Your task to perform on an android device: install app "Flipkart Online Shopping App" Image 0: 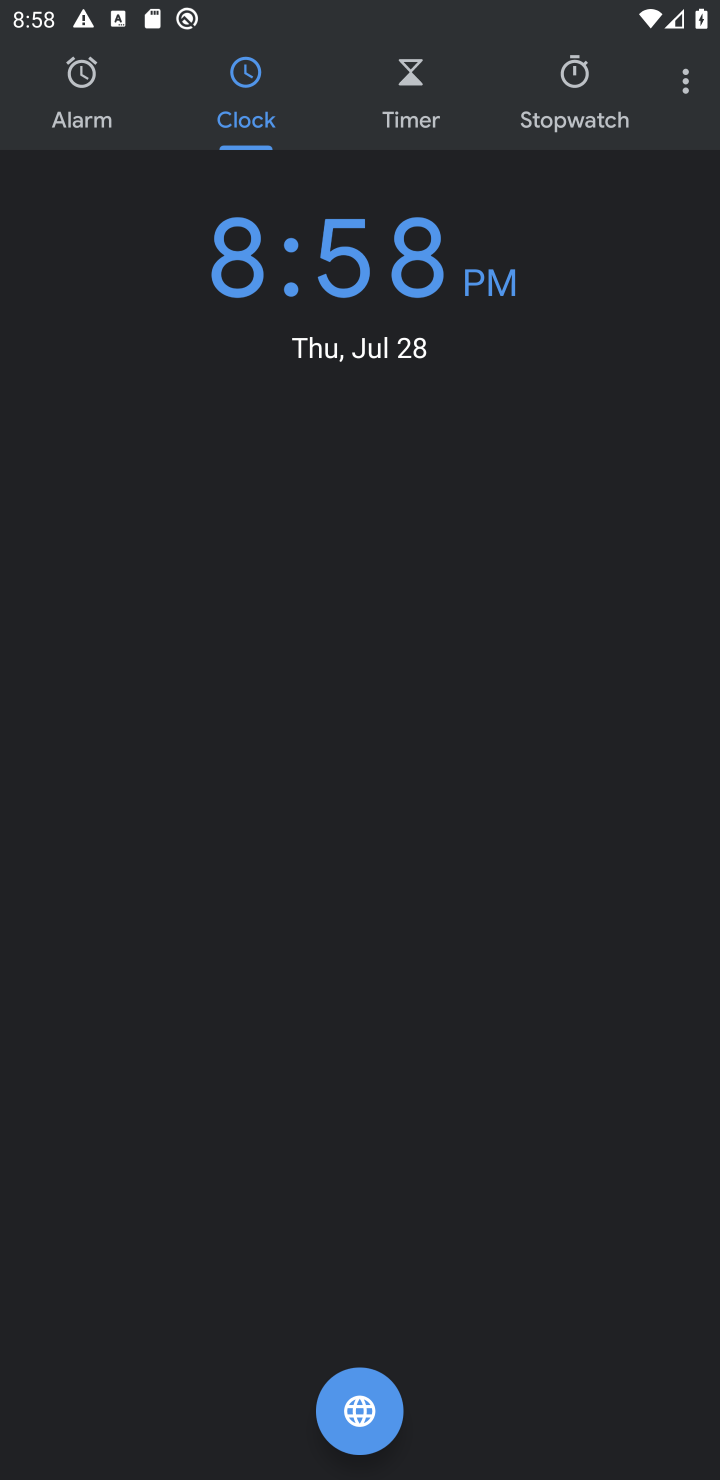
Step 0: press home button
Your task to perform on an android device: install app "Flipkart Online Shopping App" Image 1: 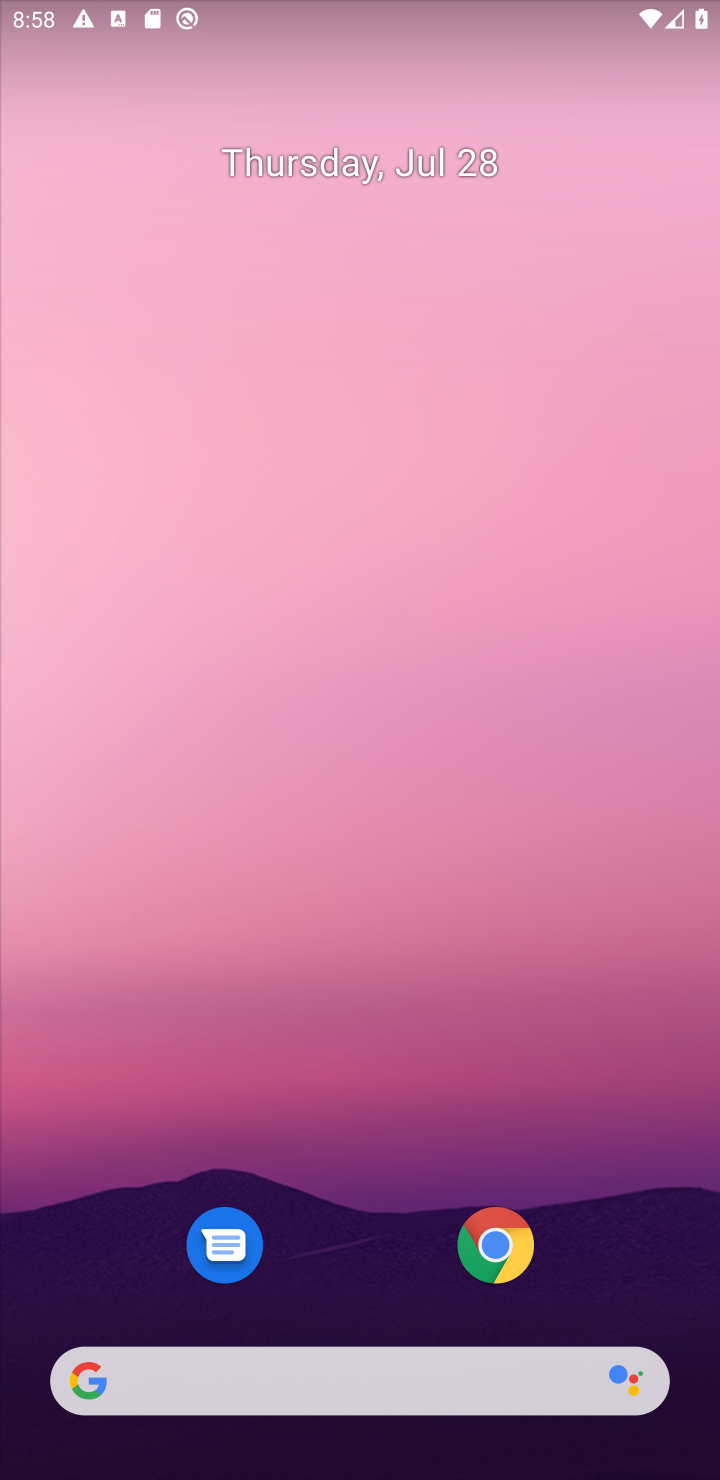
Step 1: drag from (393, 1185) to (451, 40)
Your task to perform on an android device: install app "Flipkart Online Shopping App" Image 2: 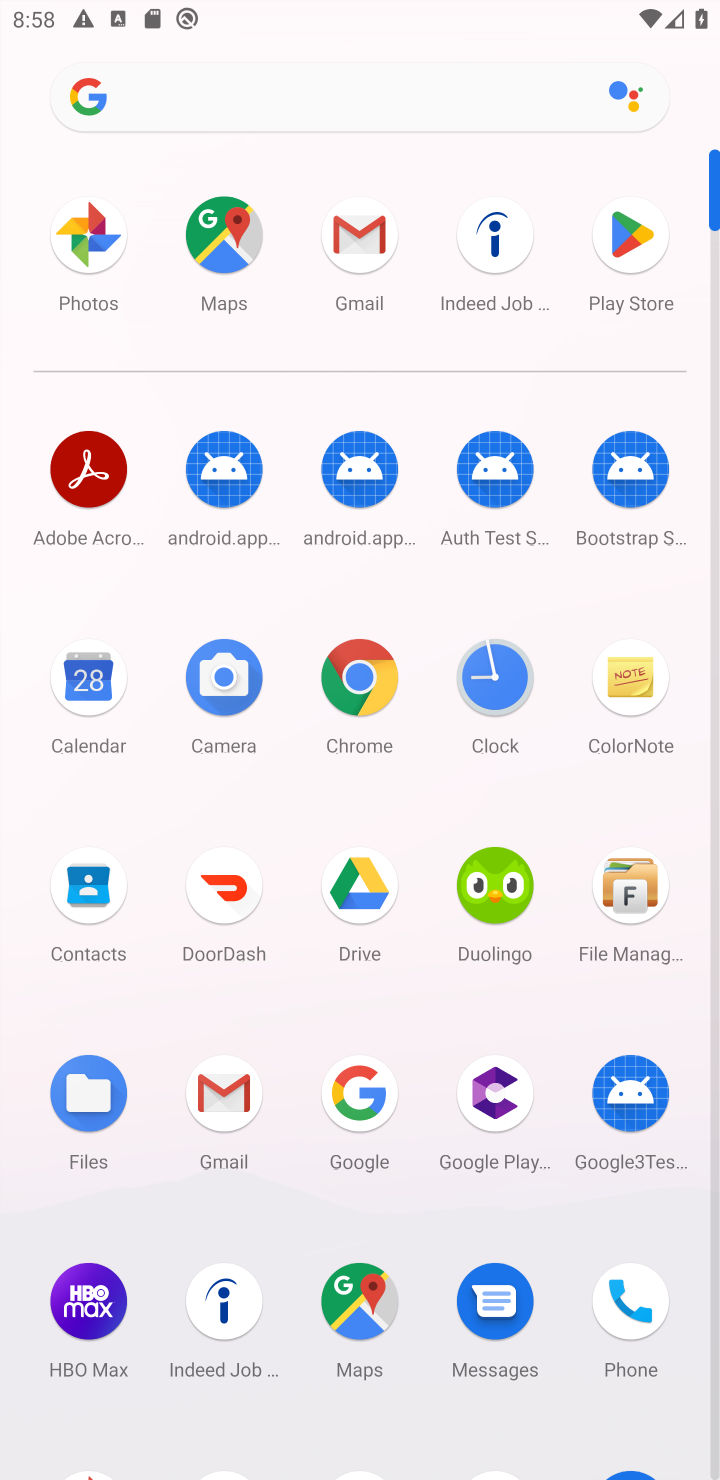
Step 2: click (614, 269)
Your task to perform on an android device: install app "Flipkart Online Shopping App" Image 3: 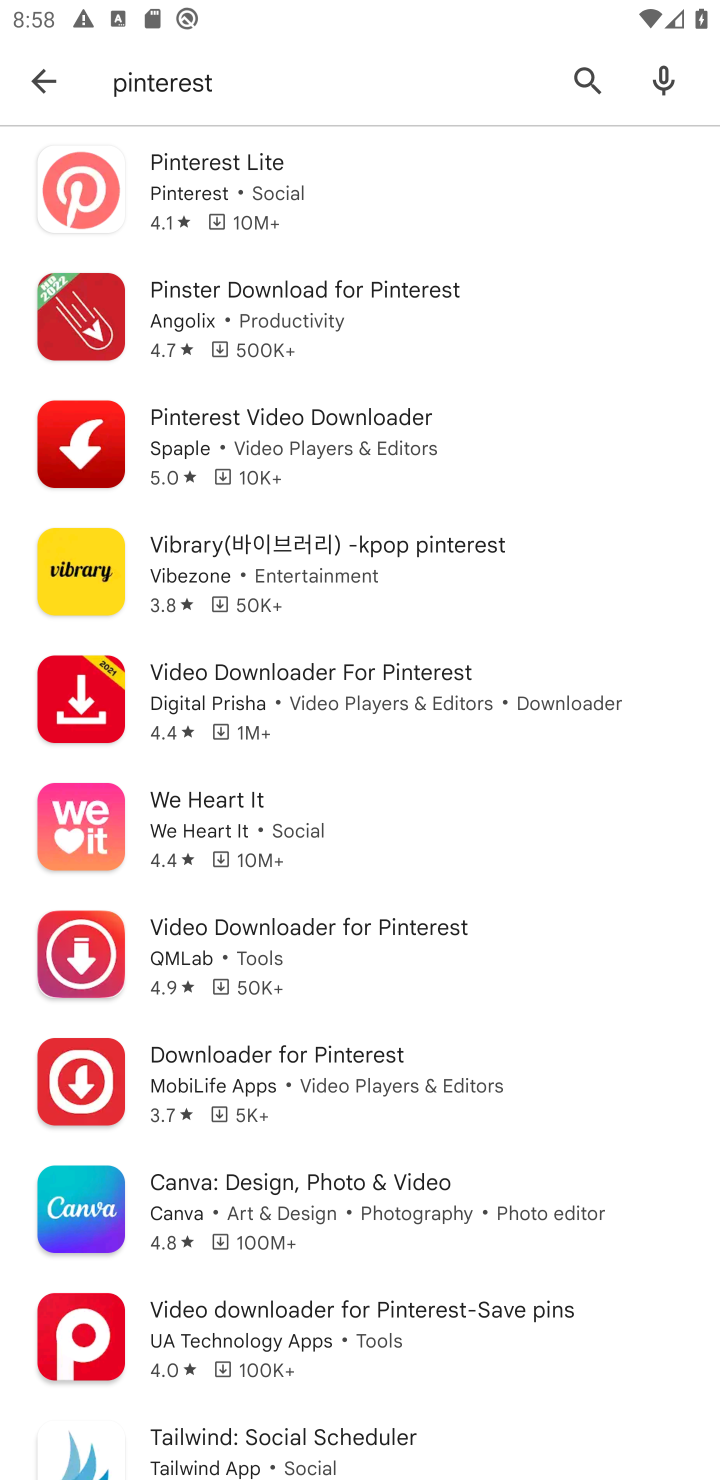
Step 3: click (571, 105)
Your task to perform on an android device: install app "Flipkart Online Shopping App" Image 4: 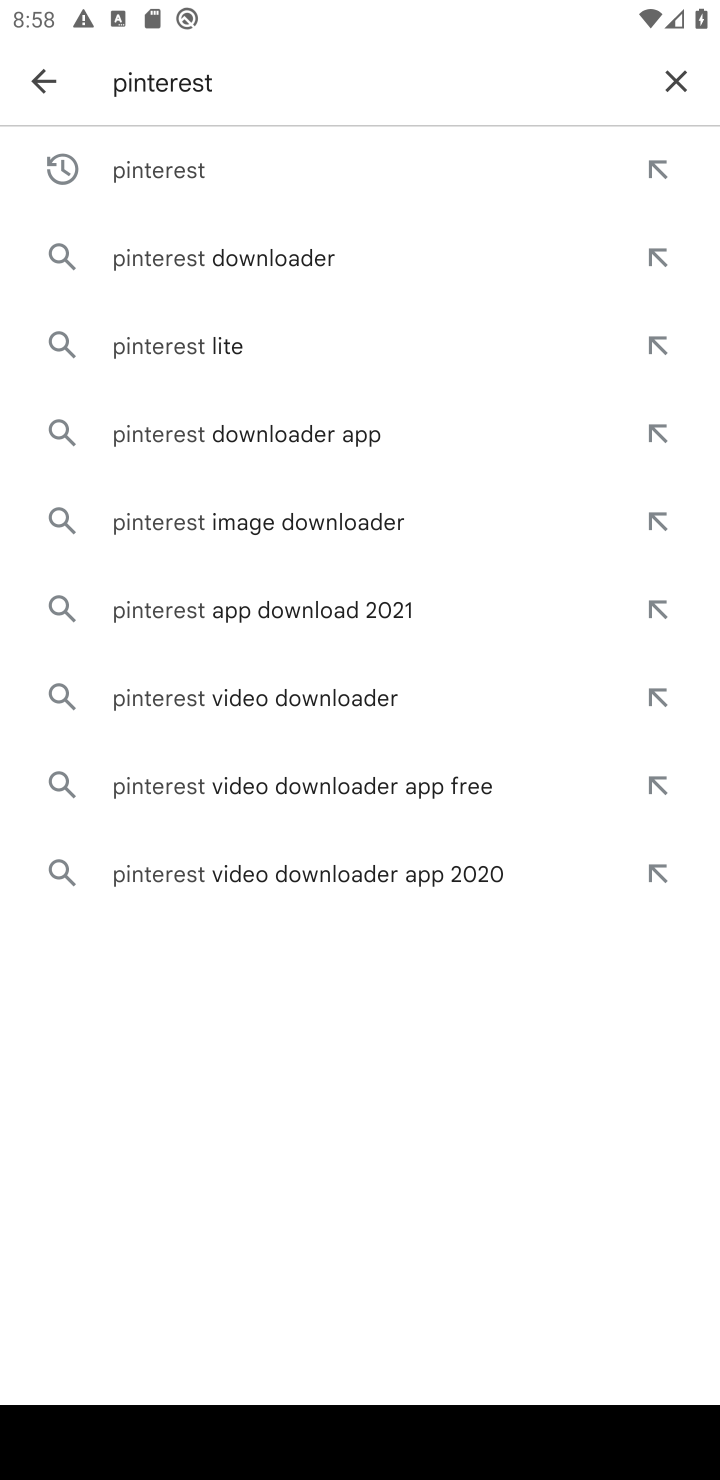
Step 4: click (664, 80)
Your task to perform on an android device: install app "Flipkart Online Shopping App" Image 5: 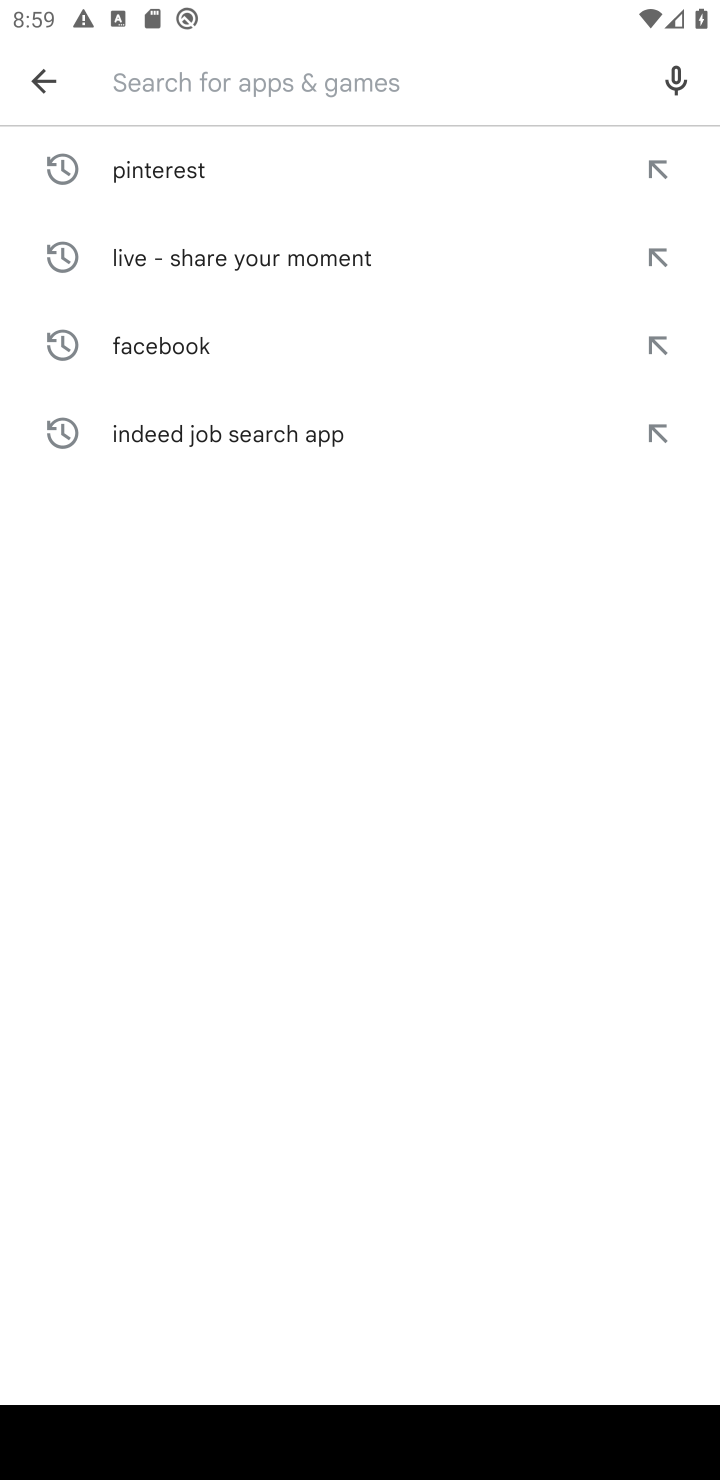
Step 5: type "flipkart online shopping app"
Your task to perform on an android device: install app "Flipkart Online Shopping App" Image 6: 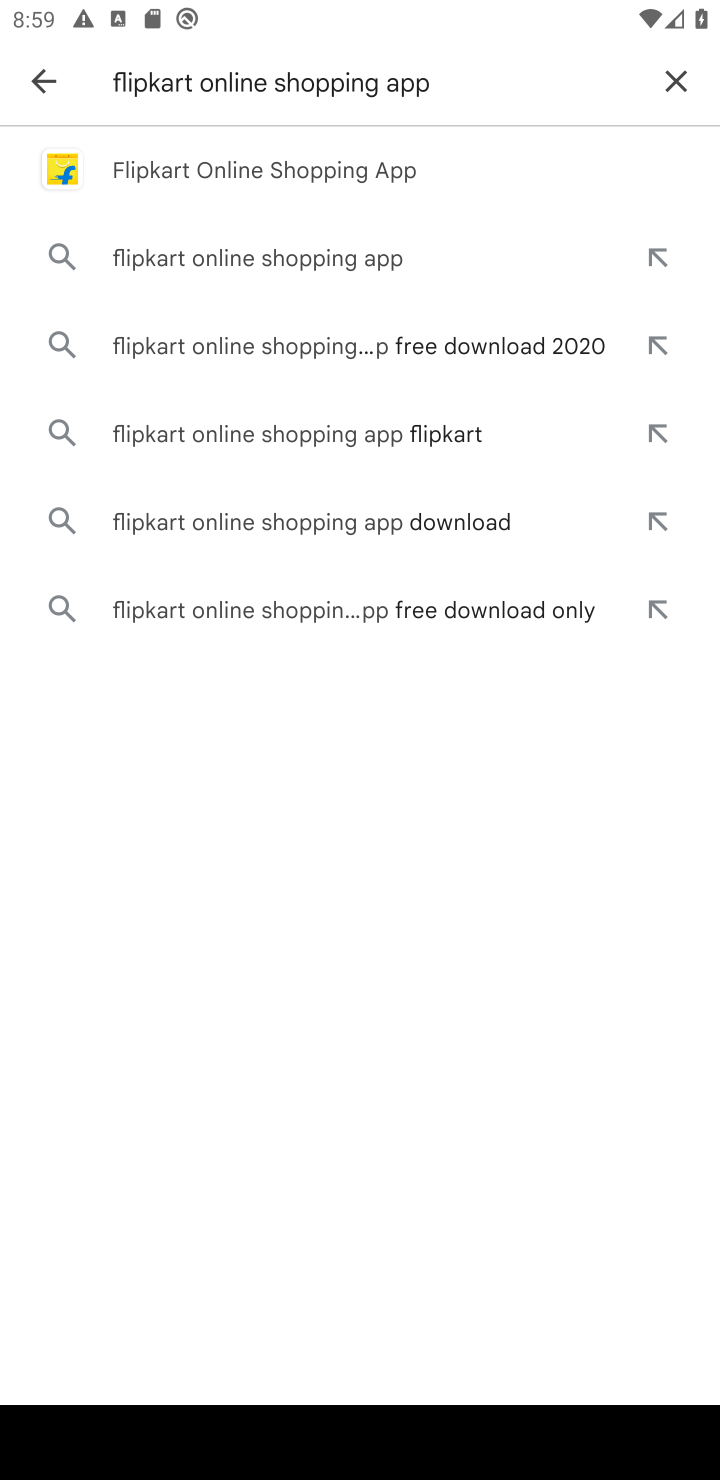
Step 6: click (208, 153)
Your task to perform on an android device: install app "Flipkart Online Shopping App" Image 7: 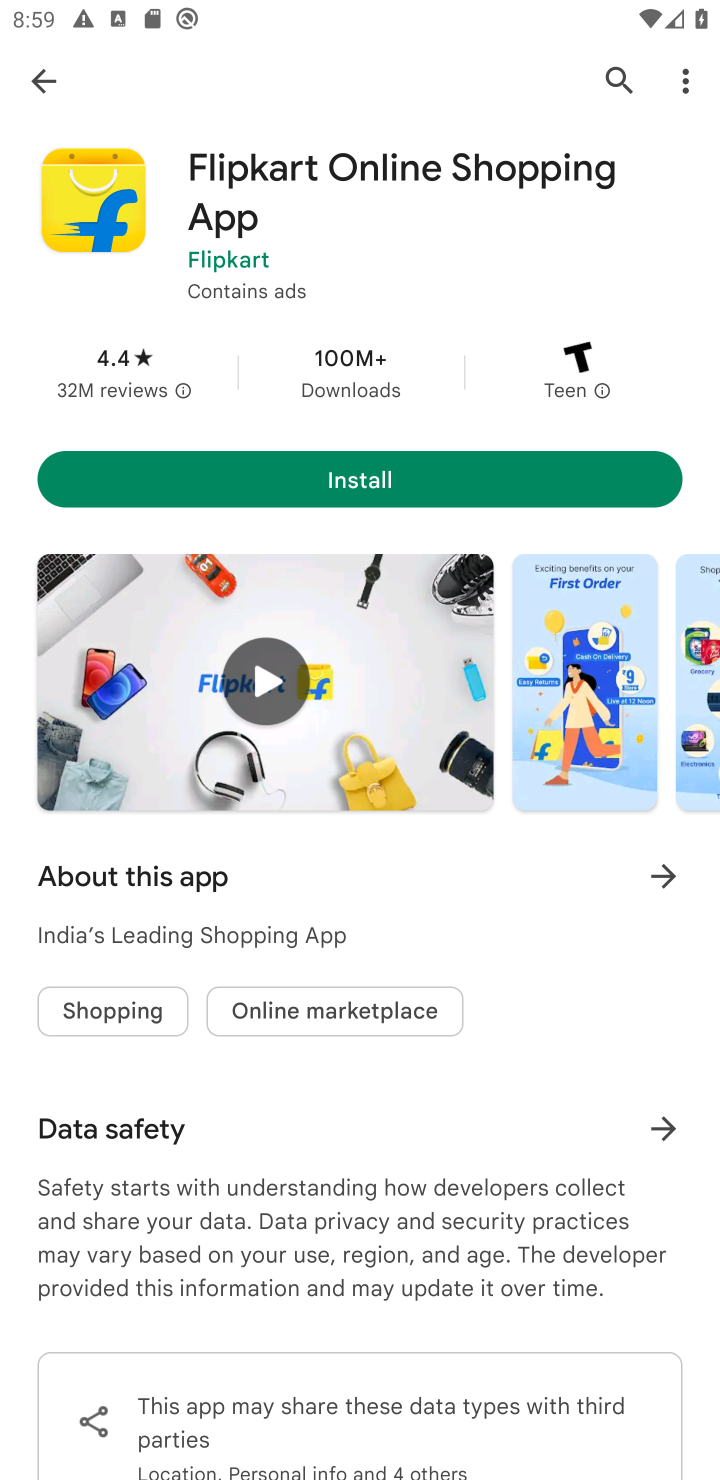
Step 7: click (254, 477)
Your task to perform on an android device: install app "Flipkart Online Shopping App" Image 8: 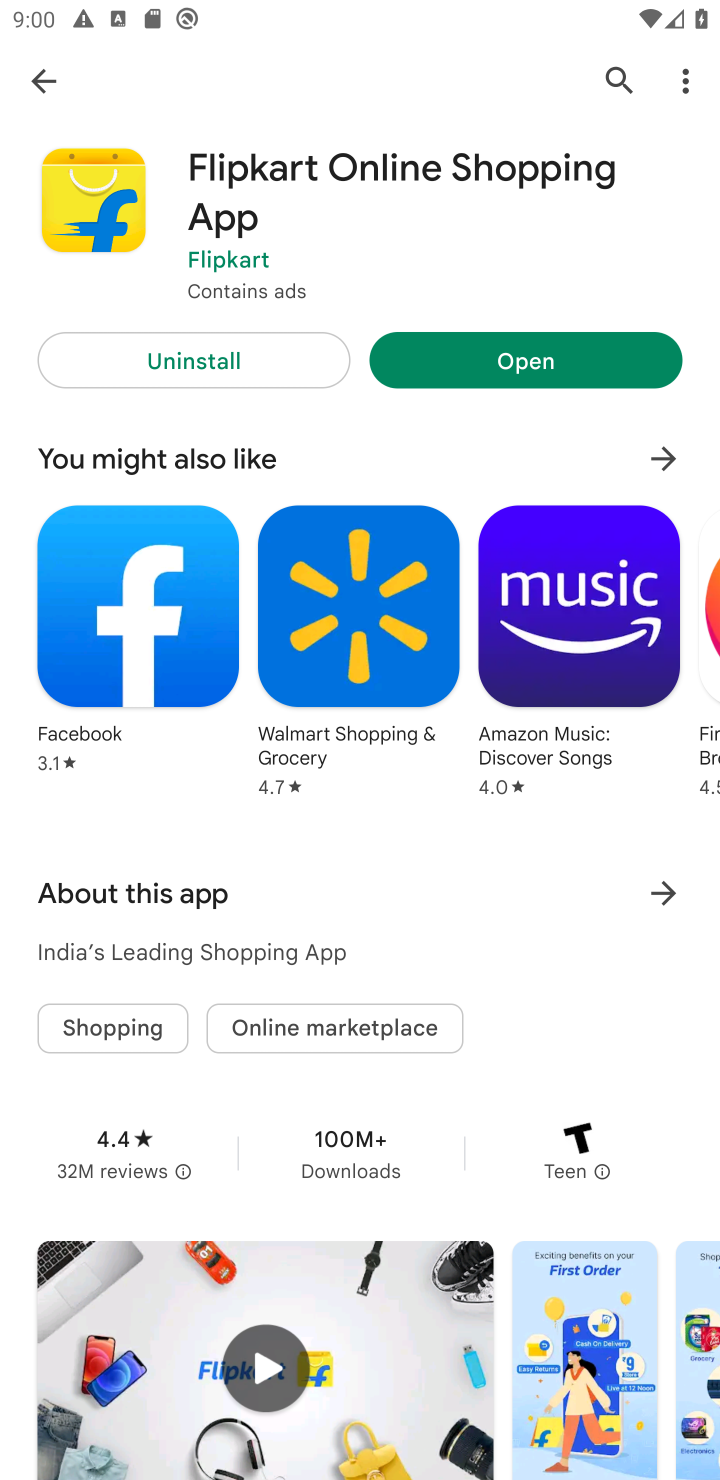
Step 8: task complete